Your task to perform on an android device: What's the weather? Image 0: 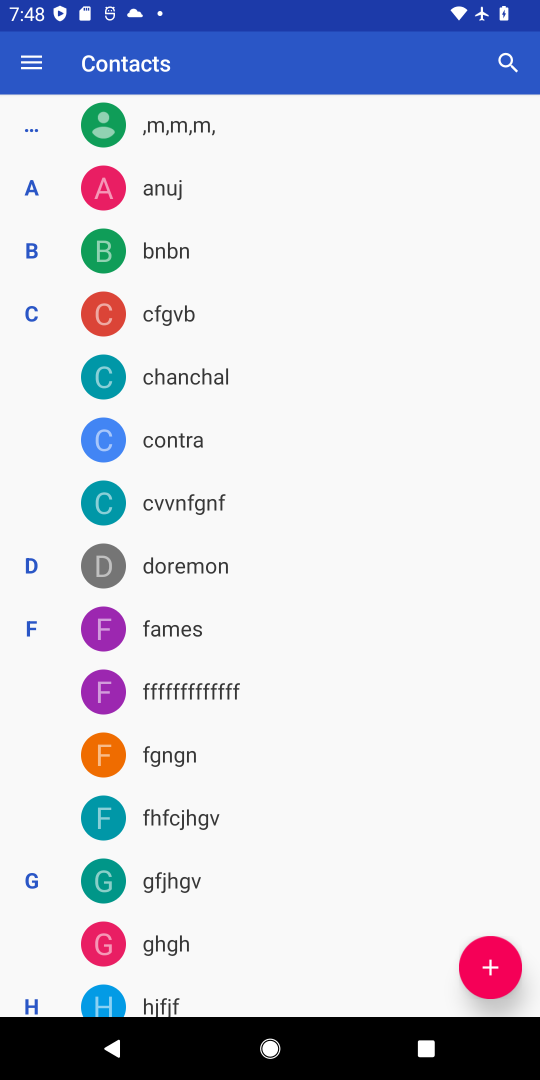
Step 0: press home button
Your task to perform on an android device: What's the weather? Image 1: 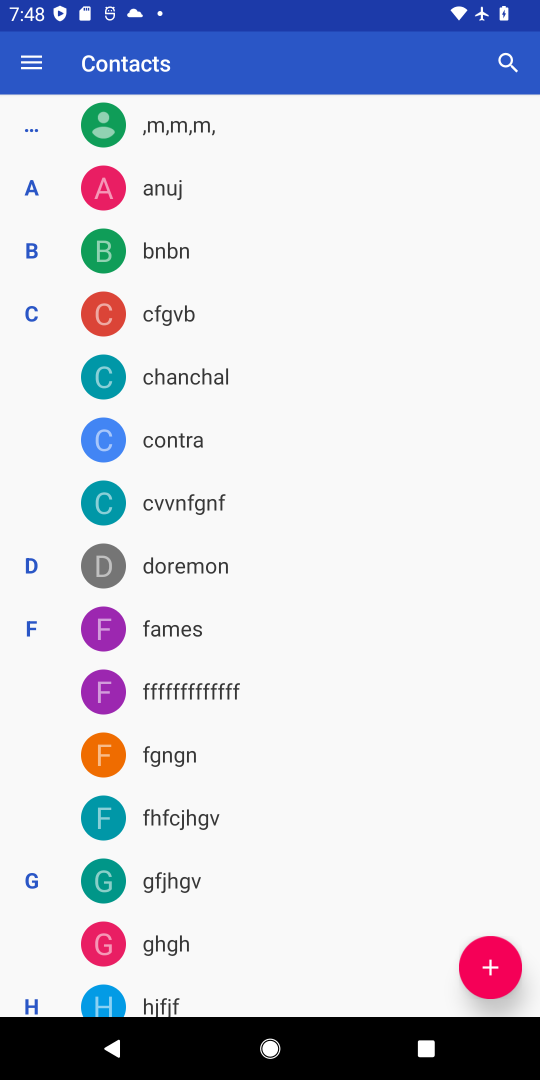
Step 1: press home button
Your task to perform on an android device: What's the weather? Image 2: 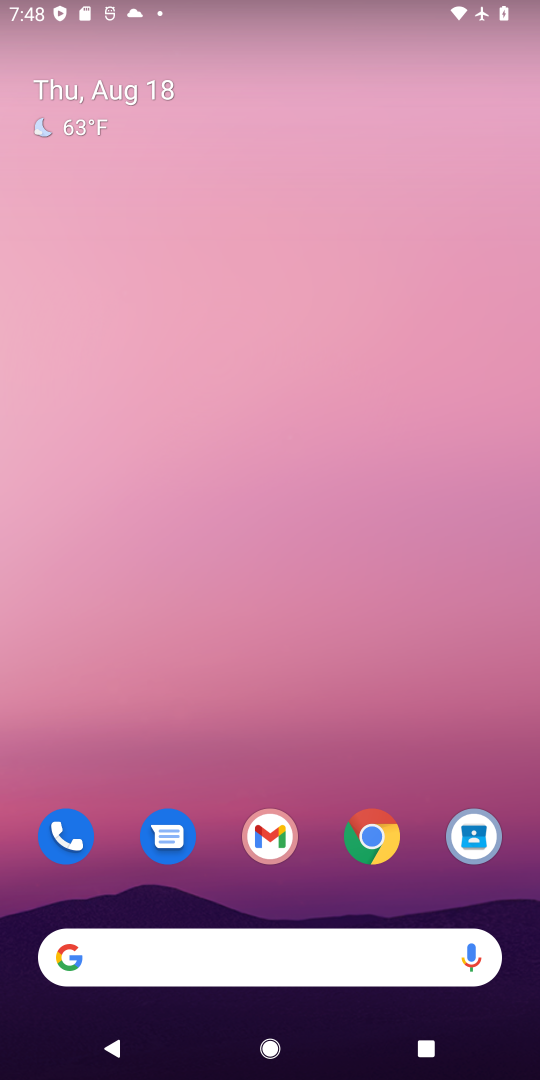
Step 2: click (77, 132)
Your task to perform on an android device: What's the weather? Image 3: 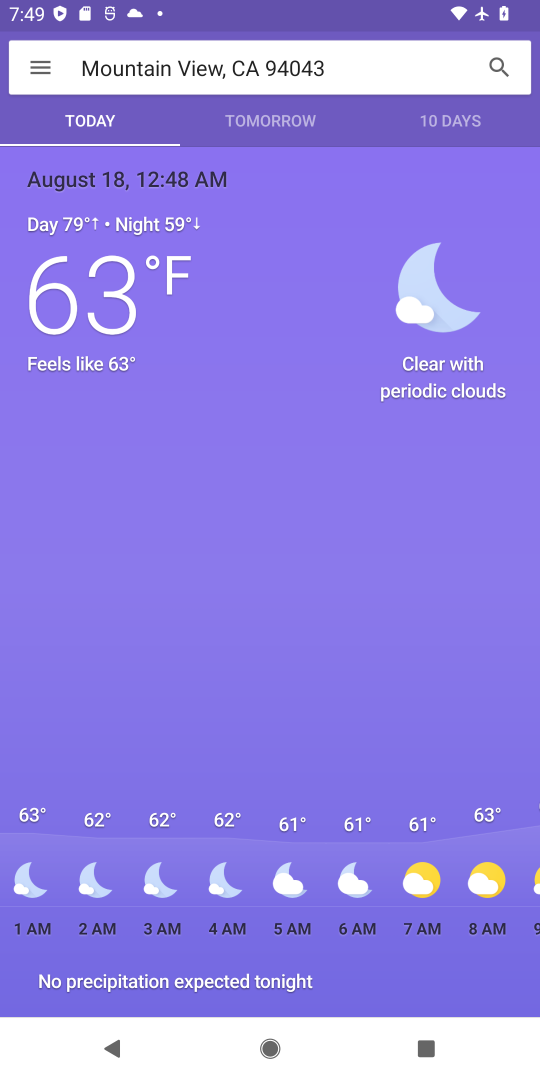
Step 3: task complete